Your task to perform on an android device: Open Chrome and go to settings Image 0: 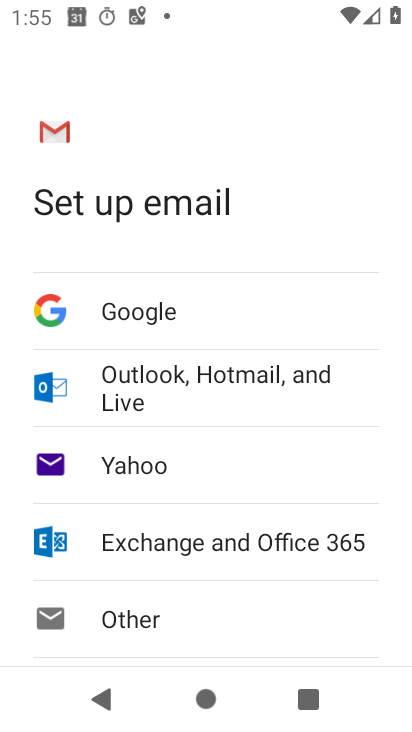
Step 0: press home button
Your task to perform on an android device: Open Chrome and go to settings Image 1: 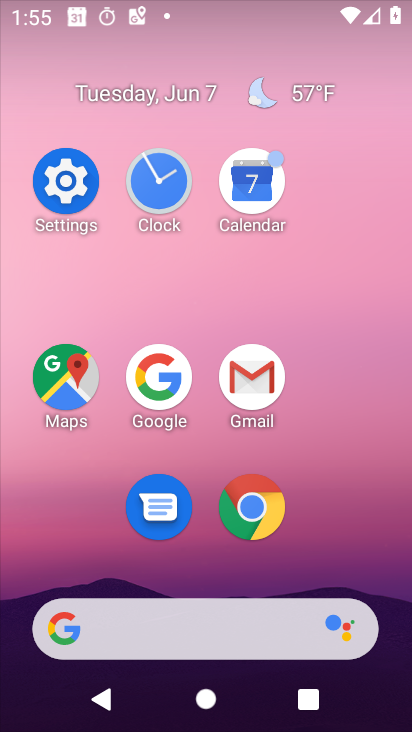
Step 1: click (266, 527)
Your task to perform on an android device: Open Chrome and go to settings Image 2: 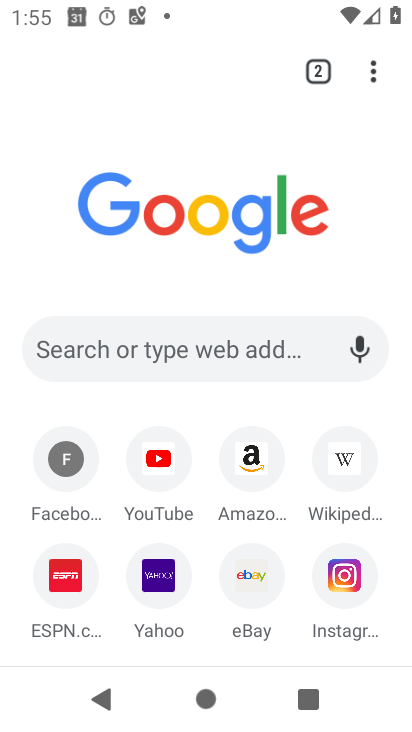
Step 2: click (373, 72)
Your task to perform on an android device: Open Chrome and go to settings Image 3: 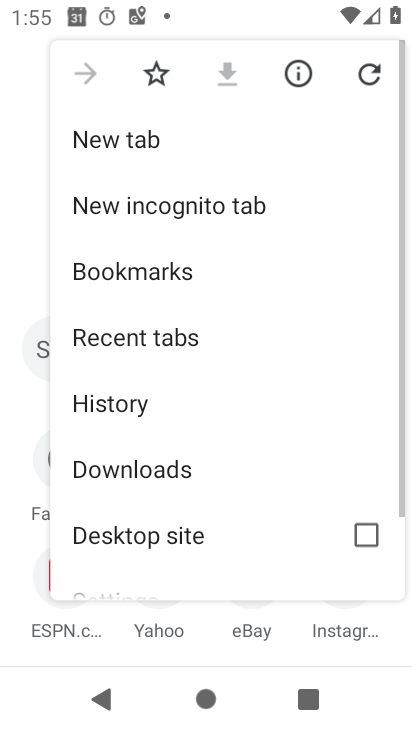
Step 3: drag from (210, 462) to (197, 106)
Your task to perform on an android device: Open Chrome and go to settings Image 4: 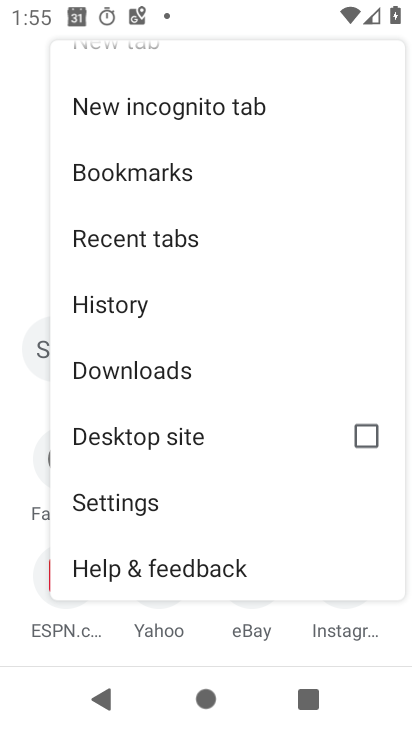
Step 4: click (143, 500)
Your task to perform on an android device: Open Chrome and go to settings Image 5: 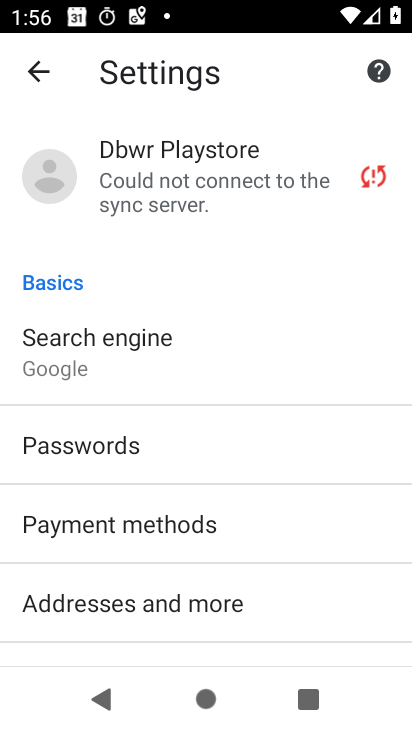
Step 5: task complete